Your task to perform on an android device: change notifications settings Image 0: 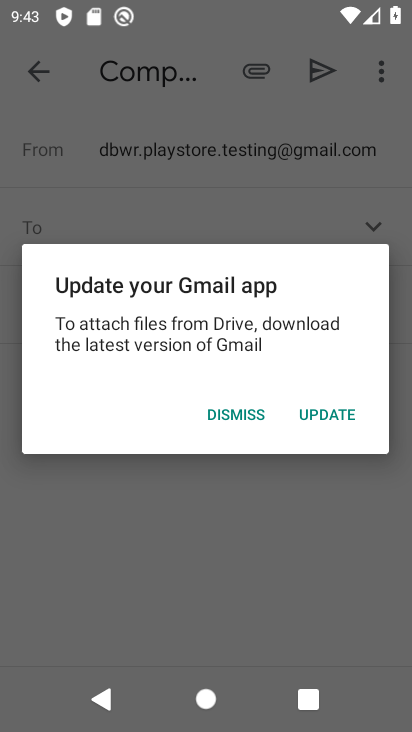
Step 0: click (260, 423)
Your task to perform on an android device: change notifications settings Image 1: 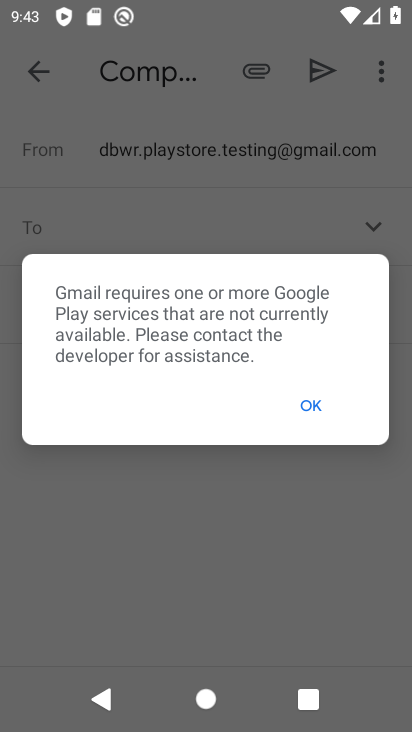
Step 1: click (299, 404)
Your task to perform on an android device: change notifications settings Image 2: 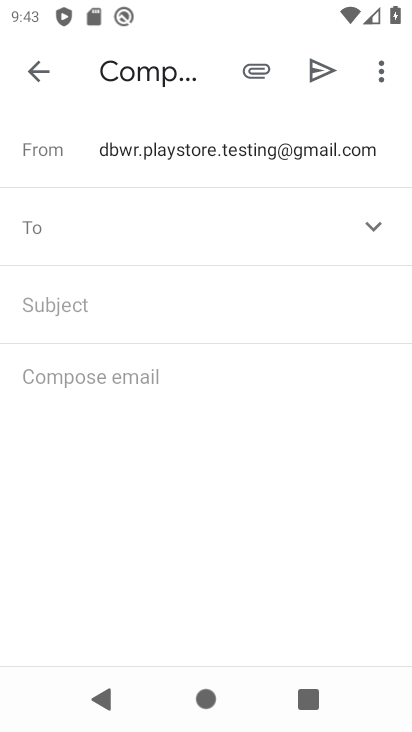
Step 2: press home button
Your task to perform on an android device: change notifications settings Image 3: 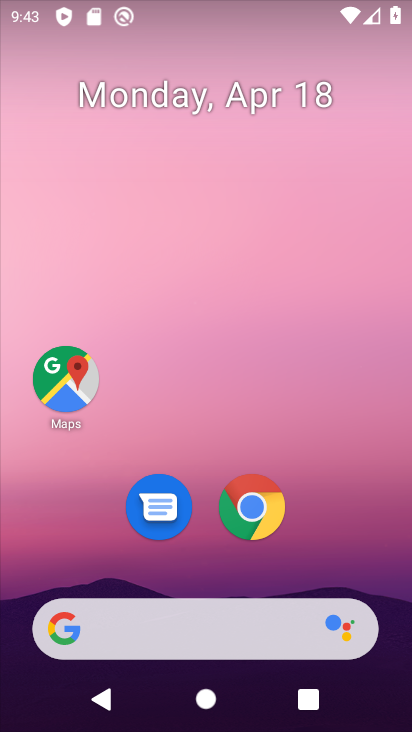
Step 3: drag from (232, 572) to (155, 32)
Your task to perform on an android device: change notifications settings Image 4: 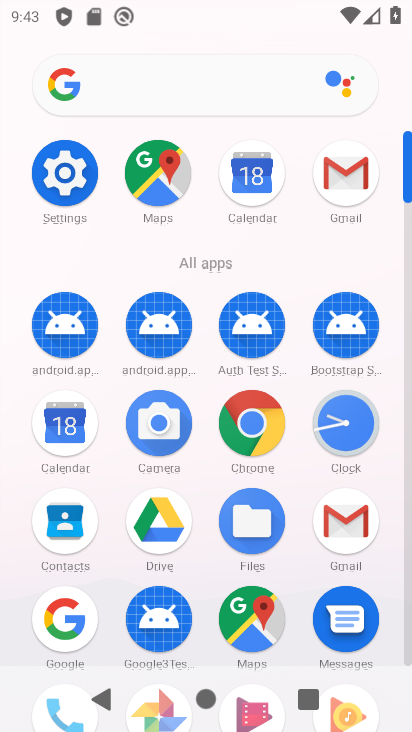
Step 4: click (66, 173)
Your task to perform on an android device: change notifications settings Image 5: 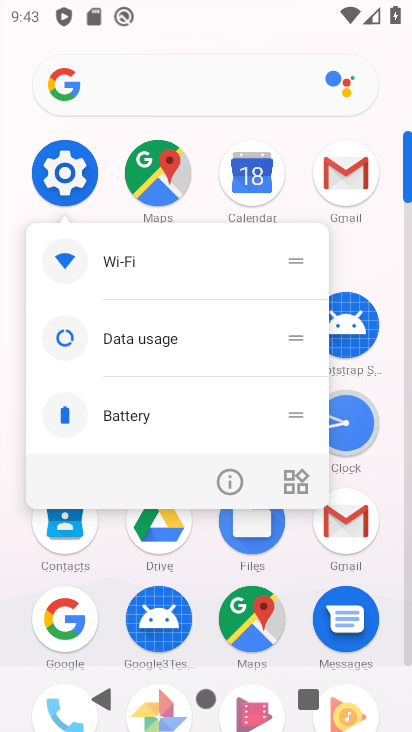
Step 5: click (69, 147)
Your task to perform on an android device: change notifications settings Image 6: 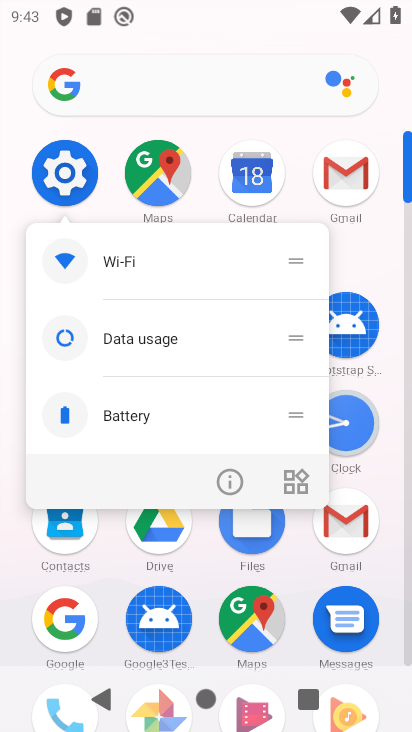
Step 6: click (75, 165)
Your task to perform on an android device: change notifications settings Image 7: 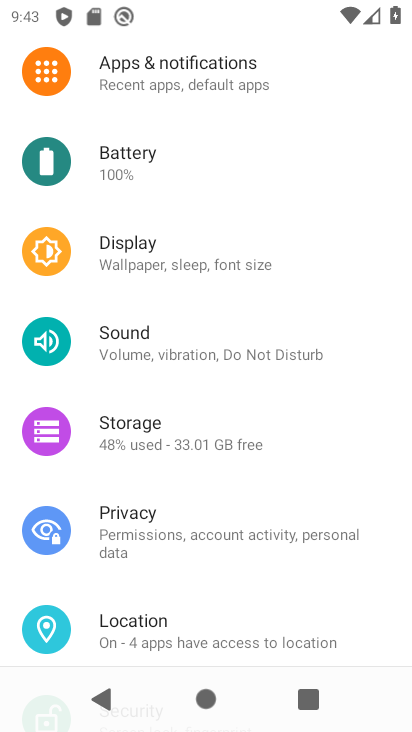
Step 7: click (135, 52)
Your task to perform on an android device: change notifications settings Image 8: 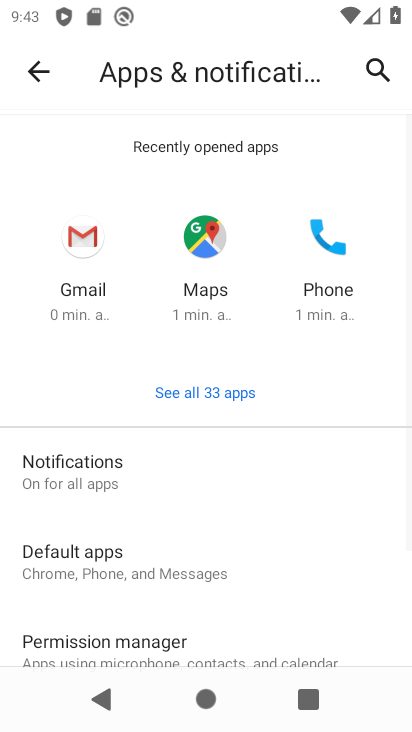
Step 8: click (118, 470)
Your task to perform on an android device: change notifications settings Image 9: 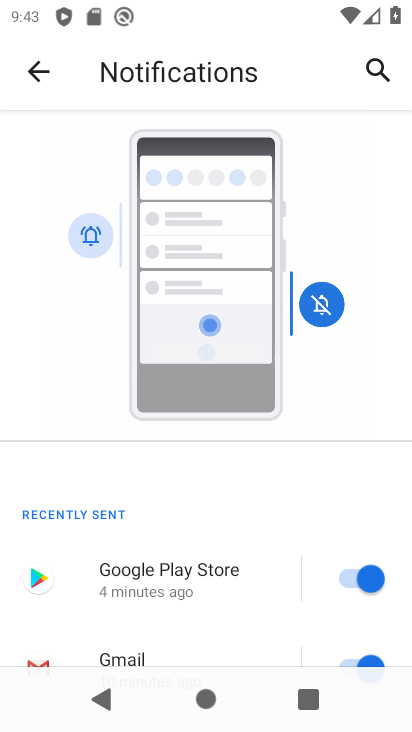
Step 9: drag from (159, 599) to (144, 79)
Your task to perform on an android device: change notifications settings Image 10: 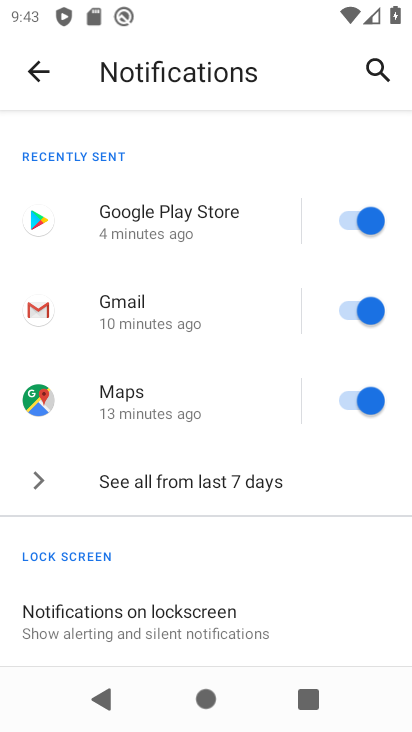
Step 10: drag from (164, 611) to (160, 272)
Your task to perform on an android device: change notifications settings Image 11: 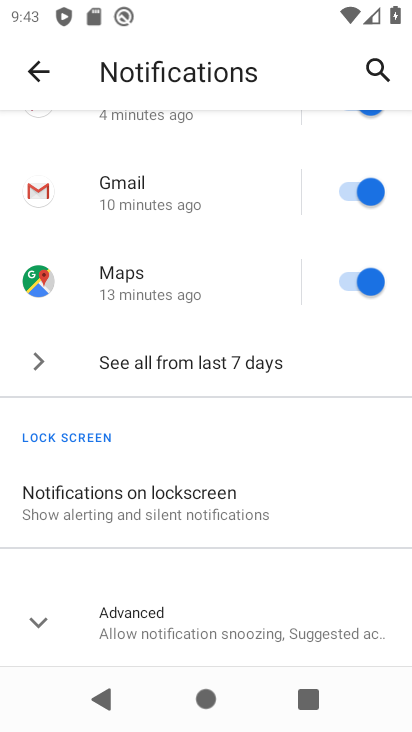
Step 11: click (166, 366)
Your task to perform on an android device: change notifications settings Image 12: 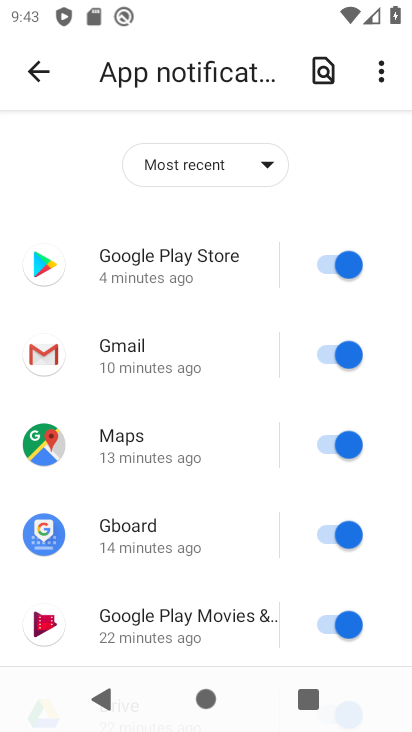
Step 12: click (171, 158)
Your task to perform on an android device: change notifications settings Image 13: 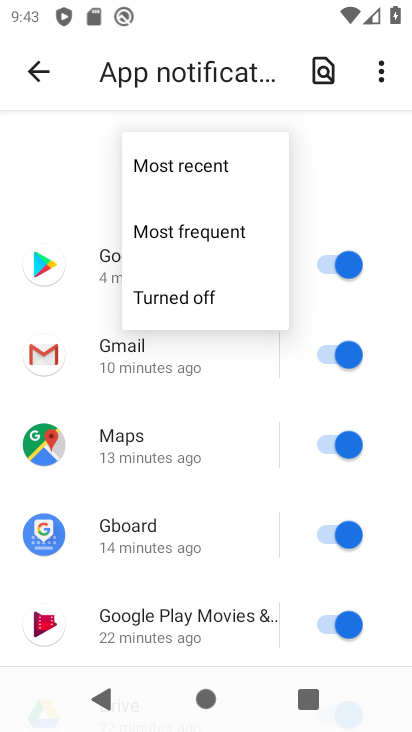
Step 13: click (184, 300)
Your task to perform on an android device: change notifications settings Image 14: 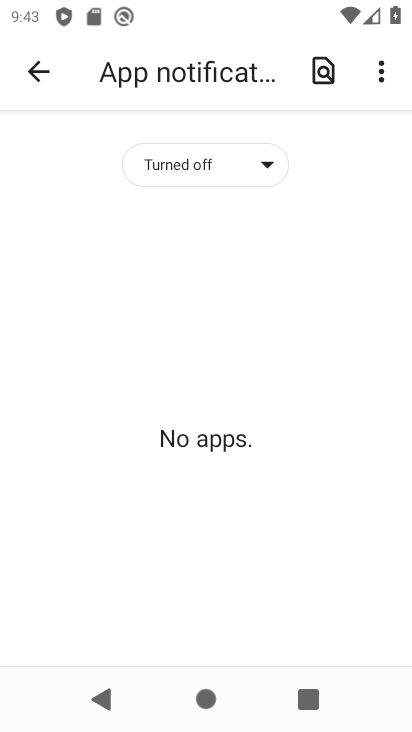
Step 14: task complete